Your task to perform on an android device: Go to internet settings Image 0: 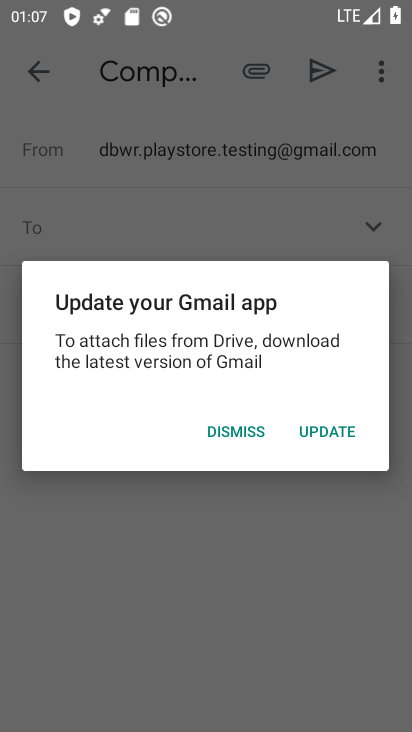
Step 0: press home button
Your task to perform on an android device: Go to internet settings Image 1: 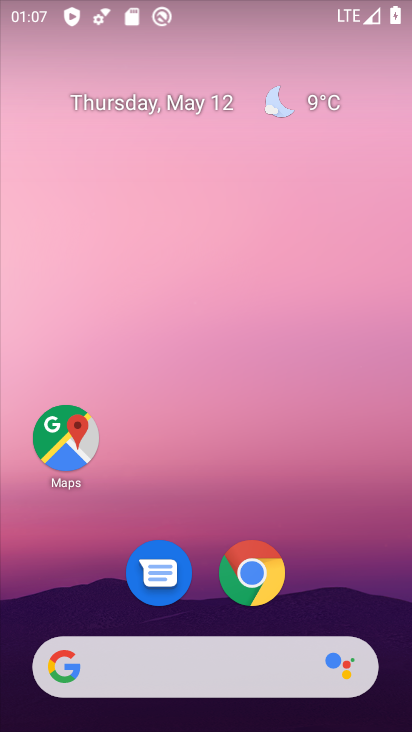
Step 1: drag from (190, 618) to (346, 7)
Your task to perform on an android device: Go to internet settings Image 2: 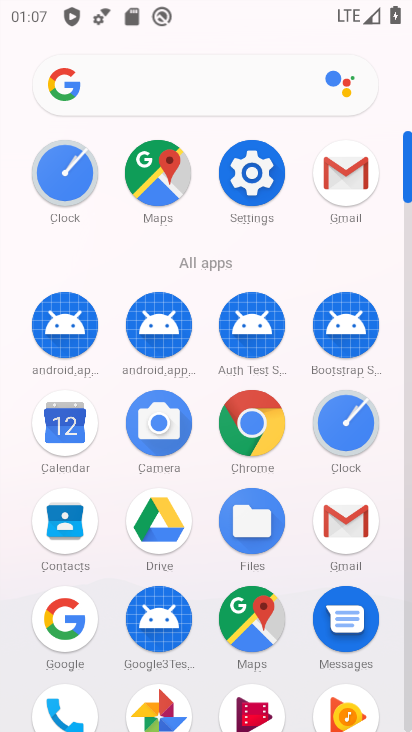
Step 2: click (257, 179)
Your task to perform on an android device: Go to internet settings Image 3: 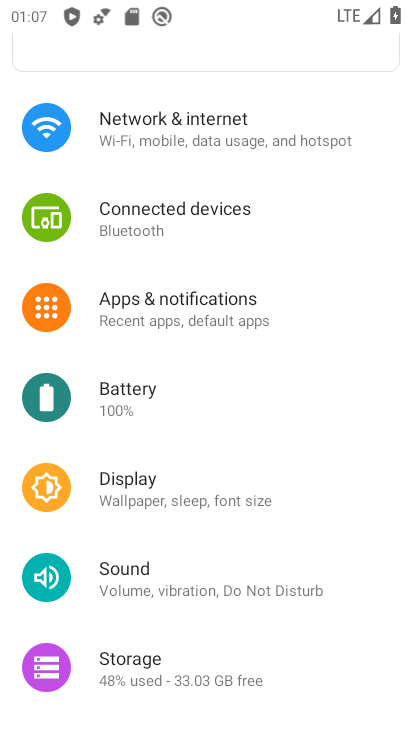
Step 3: click (226, 110)
Your task to perform on an android device: Go to internet settings Image 4: 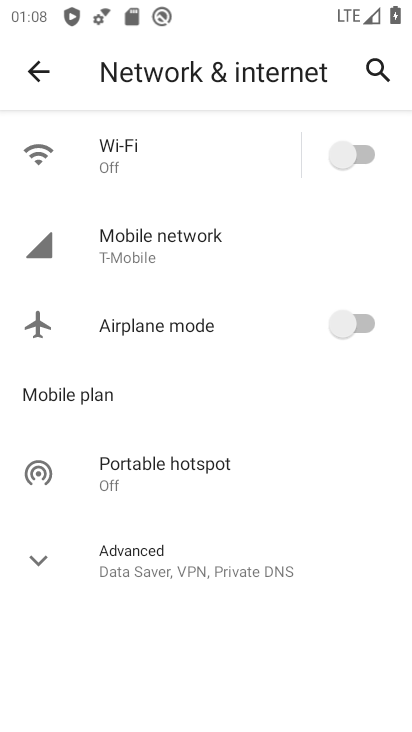
Step 4: click (137, 245)
Your task to perform on an android device: Go to internet settings Image 5: 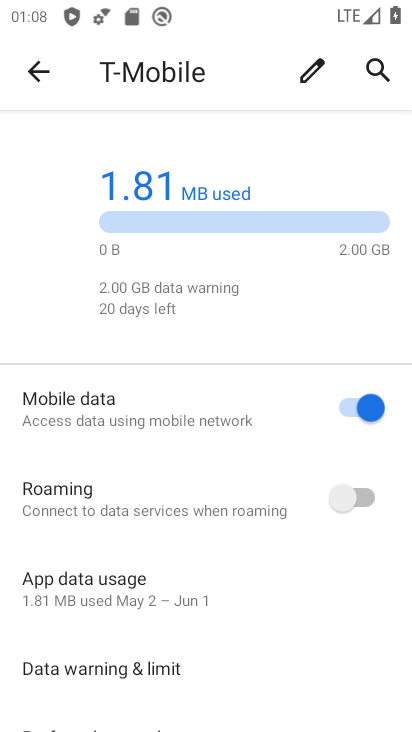
Step 5: task complete